Your task to perform on an android device: change the upload size in google photos Image 0: 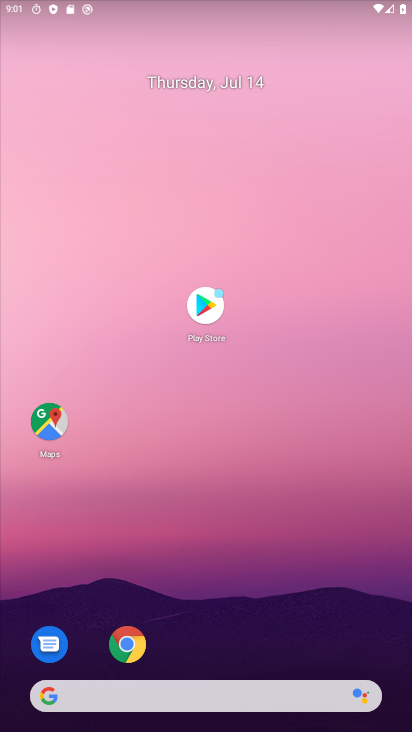
Step 0: drag from (179, 652) to (173, 104)
Your task to perform on an android device: change the upload size in google photos Image 1: 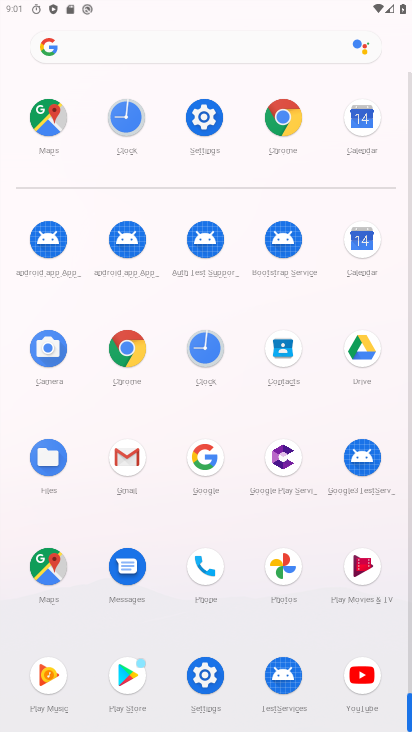
Step 1: click (282, 573)
Your task to perform on an android device: change the upload size in google photos Image 2: 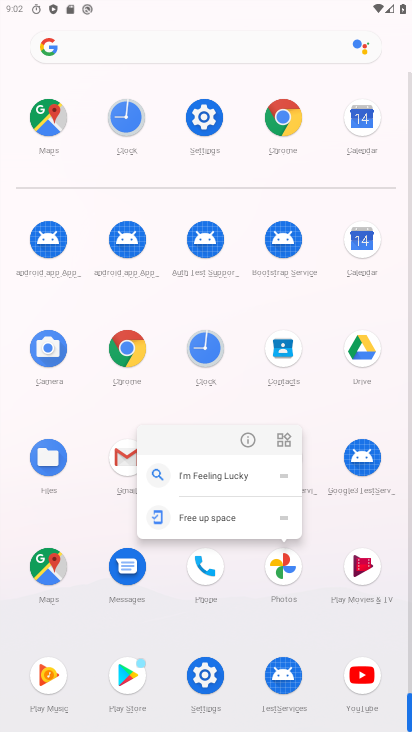
Step 2: click (251, 445)
Your task to perform on an android device: change the upload size in google photos Image 3: 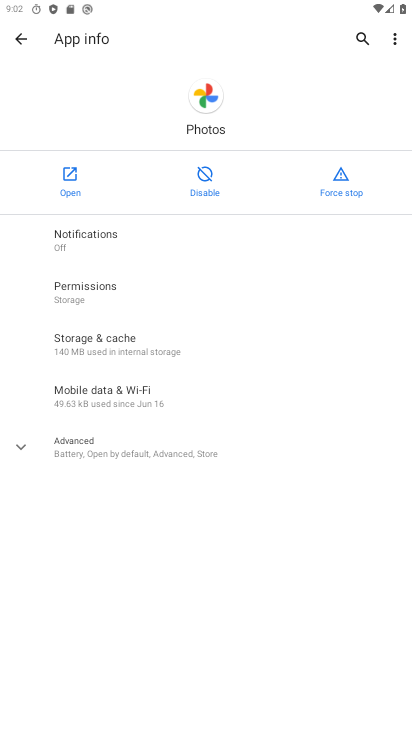
Step 3: click (65, 190)
Your task to perform on an android device: change the upload size in google photos Image 4: 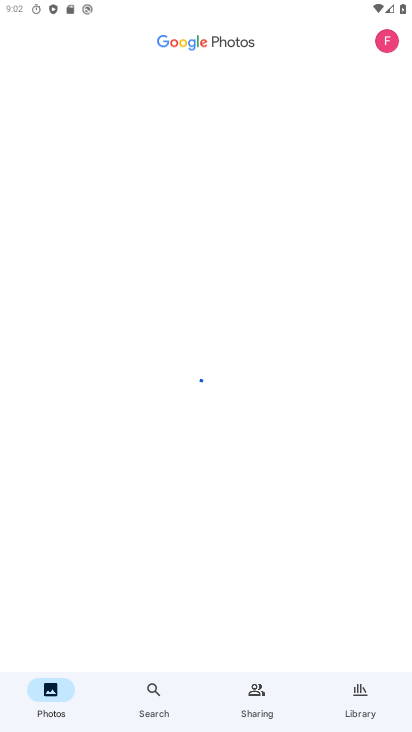
Step 4: drag from (167, 475) to (211, 301)
Your task to perform on an android device: change the upload size in google photos Image 5: 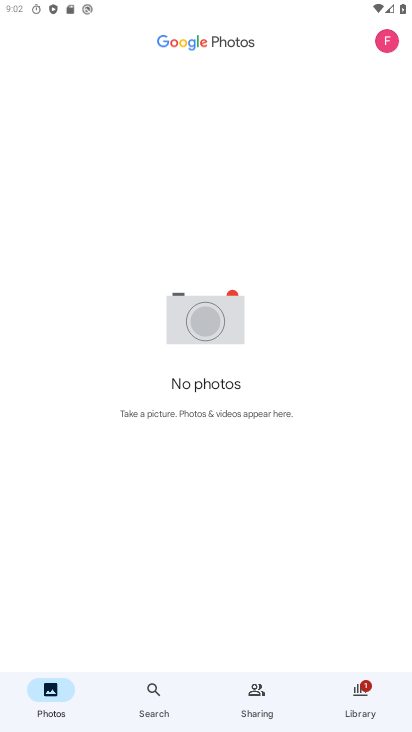
Step 5: click (396, 31)
Your task to perform on an android device: change the upload size in google photos Image 6: 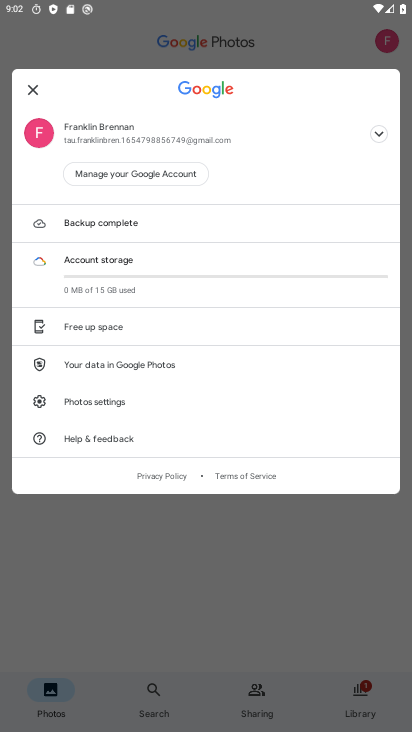
Step 6: click (75, 398)
Your task to perform on an android device: change the upload size in google photos Image 7: 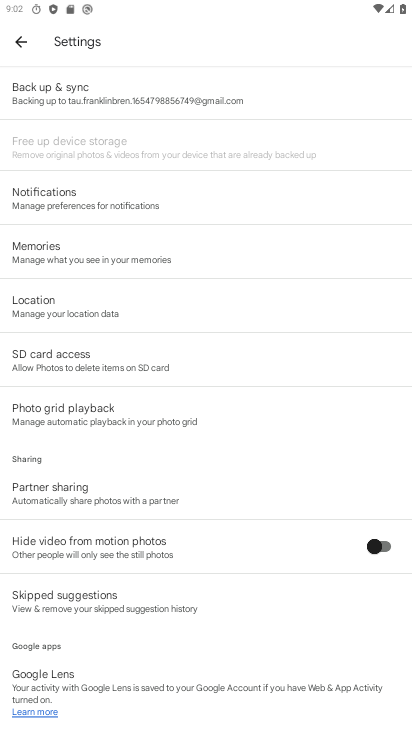
Step 7: click (156, 99)
Your task to perform on an android device: change the upload size in google photos Image 8: 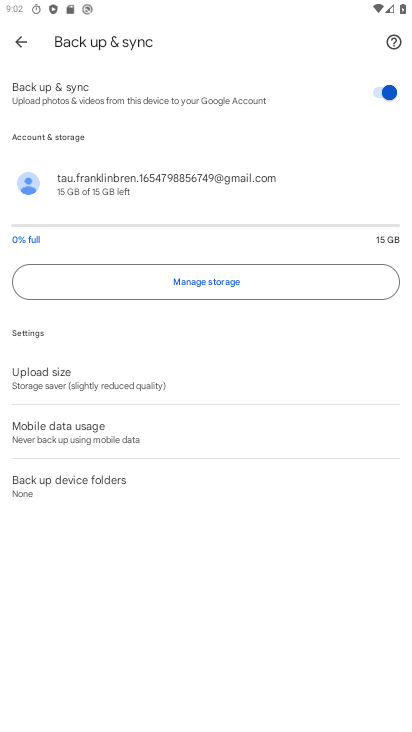
Step 8: click (89, 369)
Your task to perform on an android device: change the upload size in google photos Image 9: 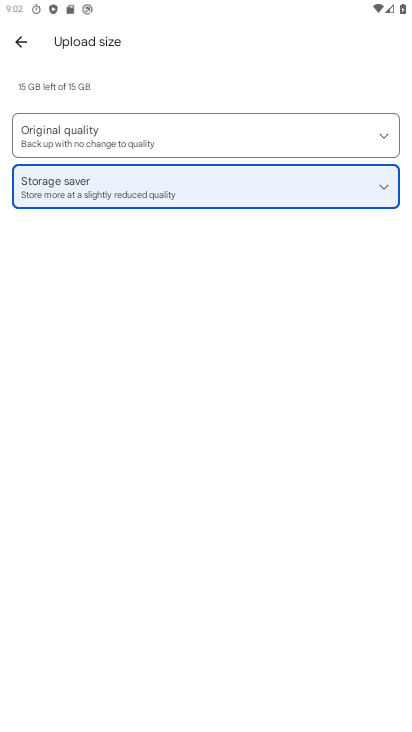
Step 9: click (140, 144)
Your task to perform on an android device: change the upload size in google photos Image 10: 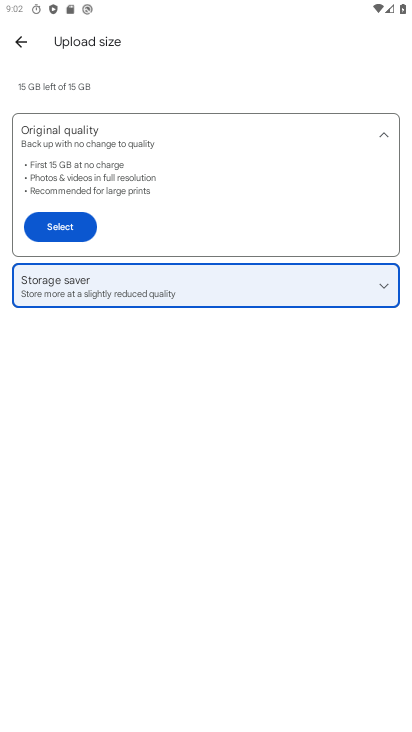
Step 10: click (63, 235)
Your task to perform on an android device: change the upload size in google photos Image 11: 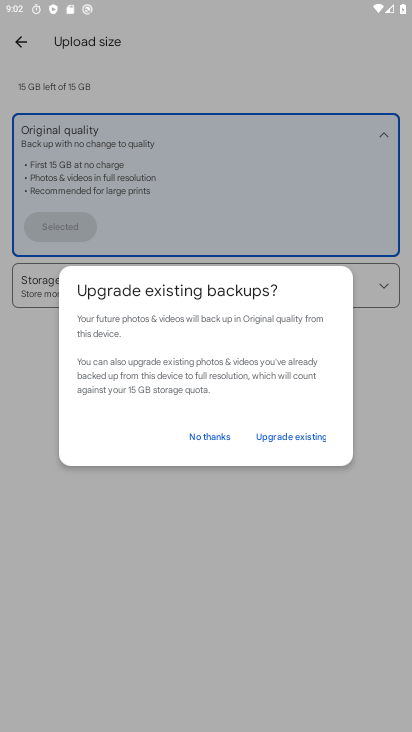
Step 11: task complete